Your task to perform on an android device: turn off smart reply in the gmail app Image 0: 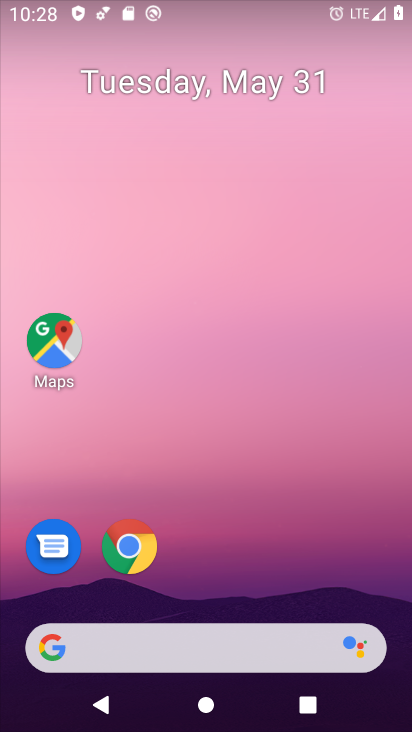
Step 0: drag from (175, 536) to (207, 72)
Your task to perform on an android device: turn off smart reply in the gmail app Image 1: 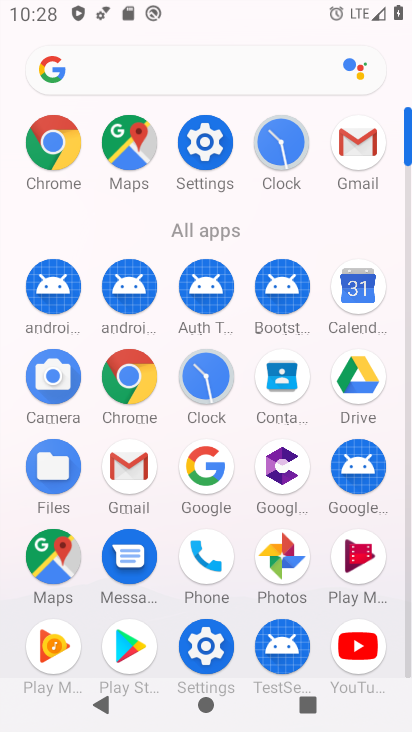
Step 1: click (131, 474)
Your task to perform on an android device: turn off smart reply in the gmail app Image 2: 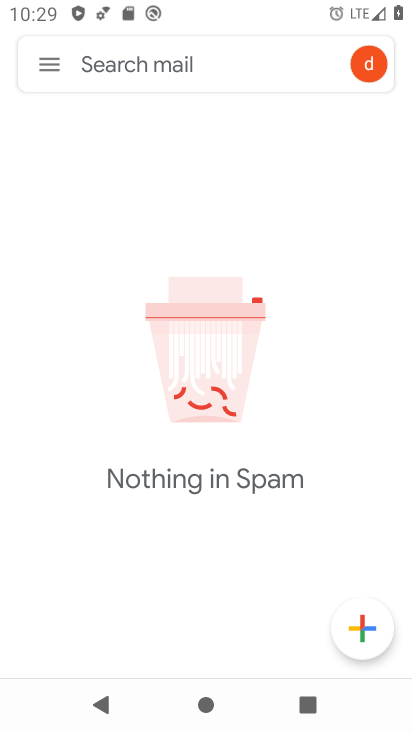
Step 2: click (62, 62)
Your task to perform on an android device: turn off smart reply in the gmail app Image 3: 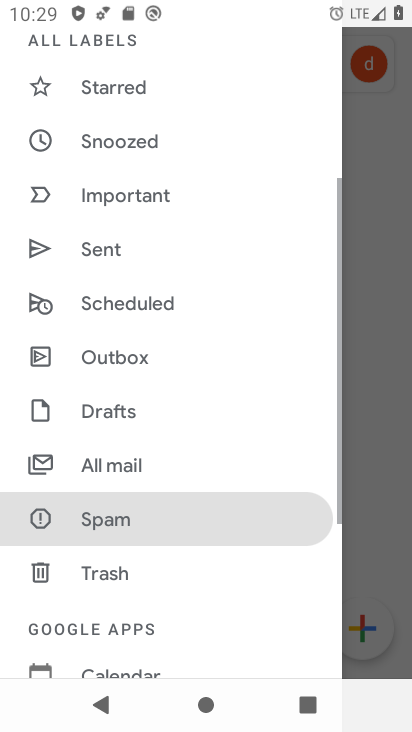
Step 3: drag from (173, 633) to (264, 141)
Your task to perform on an android device: turn off smart reply in the gmail app Image 4: 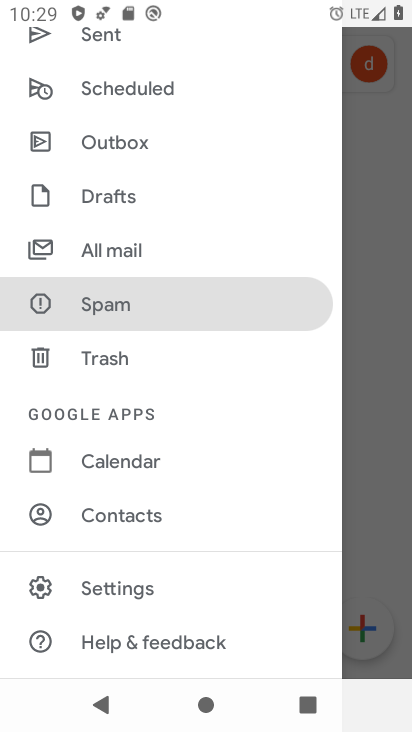
Step 4: click (134, 591)
Your task to perform on an android device: turn off smart reply in the gmail app Image 5: 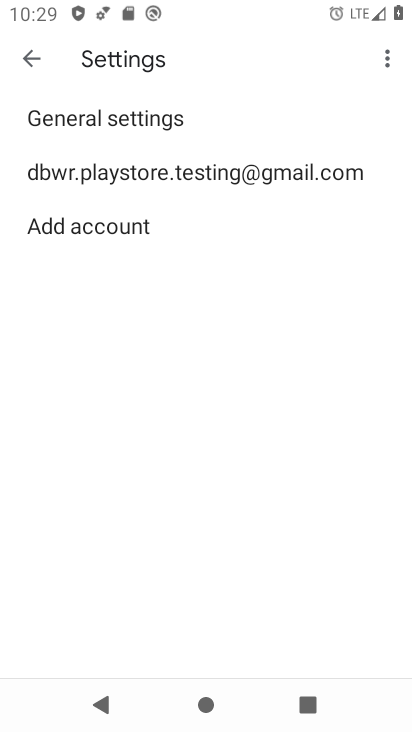
Step 5: click (258, 171)
Your task to perform on an android device: turn off smart reply in the gmail app Image 6: 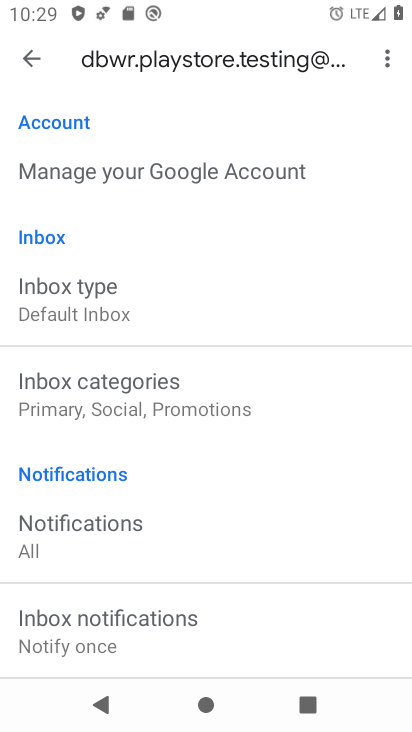
Step 6: drag from (193, 561) to (235, 114)
Your task to perform on an android device: turn off smart reply in the gmail app Image 7: 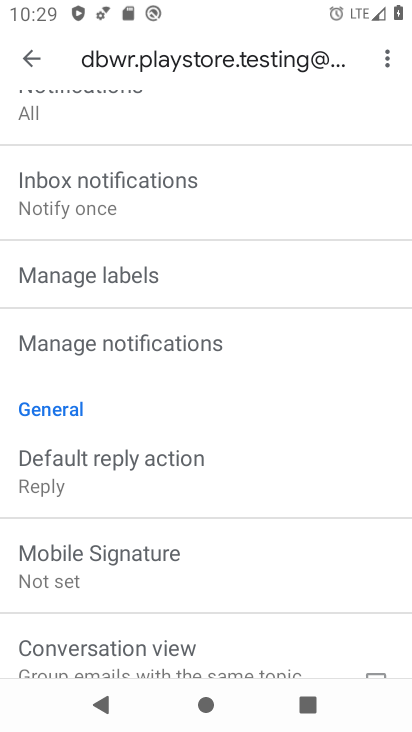
Step 7: drag from (189, 599) to (254, 114)
Your task to perform on an android device: turn off smart reply in the gmail app Image 8: 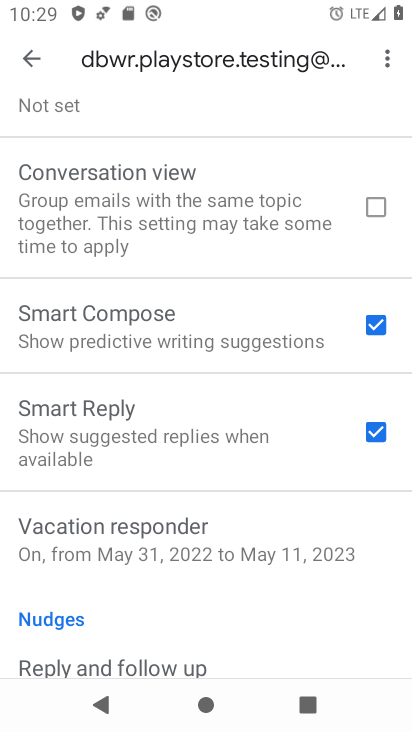
Step 8: click (368, 433)
Your task to perform on an android device: turn off smart reply in the gmail app Image 9: 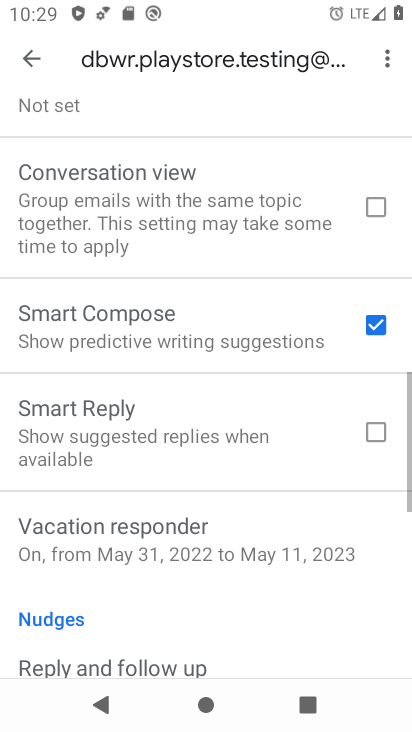
Step 9: task complete